Your task to perform on an android device: Open Reddit.com Image 0: 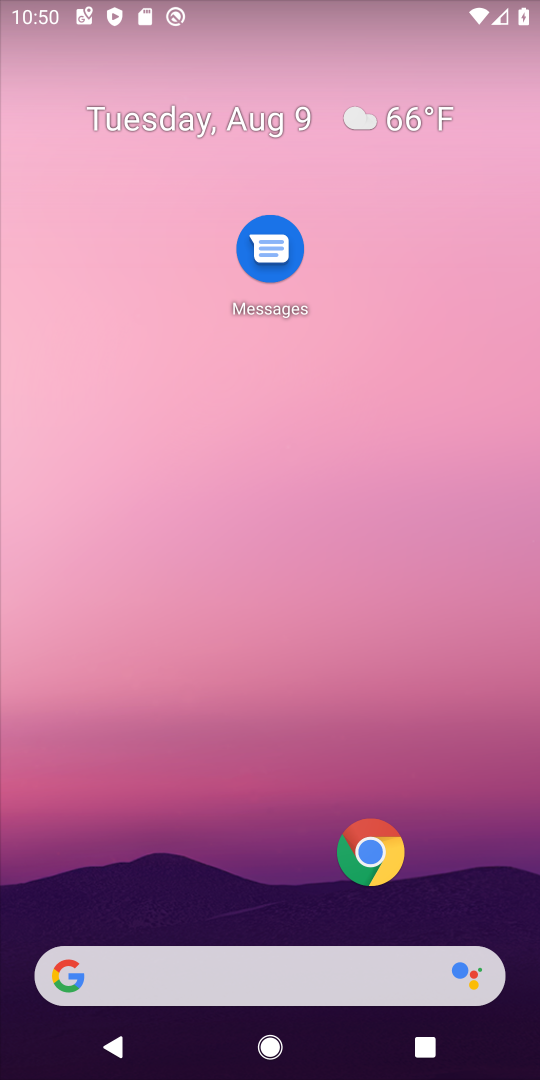
Step 0: task complete